Your task to perform on an android device: Open Maps and search for coffee Image 0: 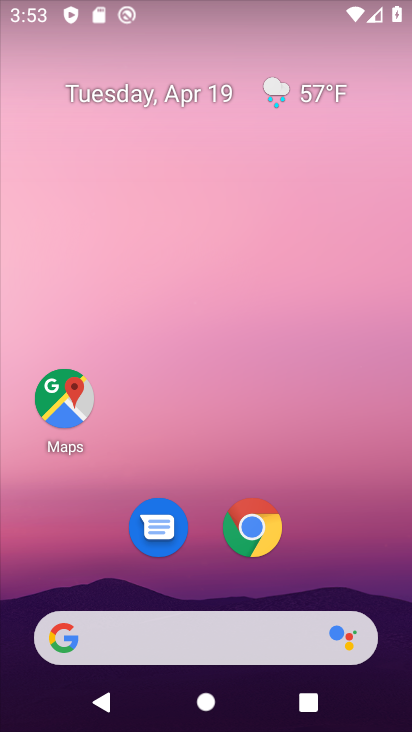
Step 0: click (55, 390)
Your task to perform on an android device: Open Maps and search for coffee Image 1: 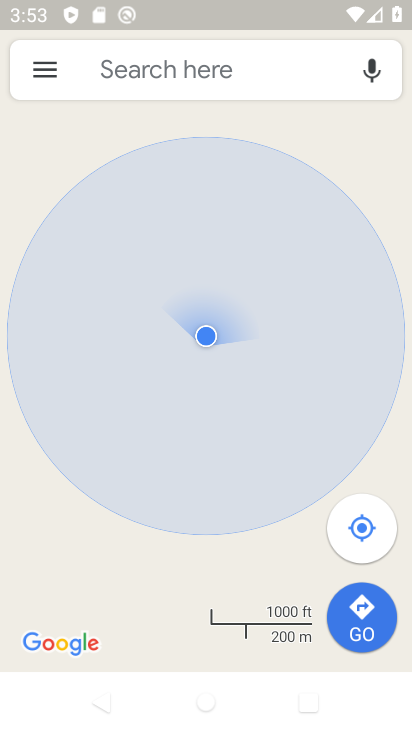
Step 1: click (163, 65)
Your task to perform on an android device: Open Maps and search for coffee Image 2: 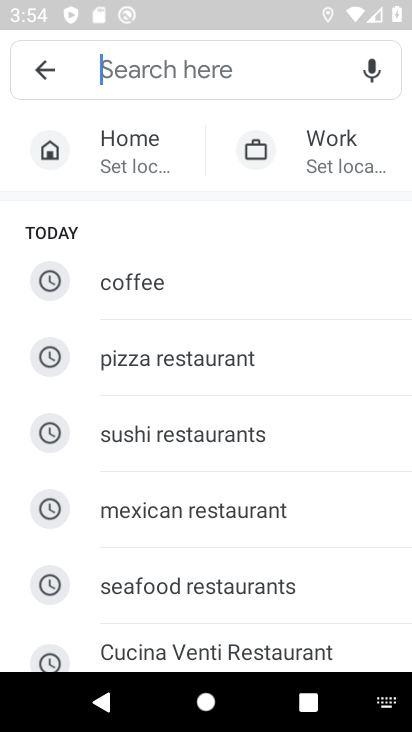
Step 2: type "coffee"
Your task to perform on an android device: Open Maps and search for coffee Image 3: 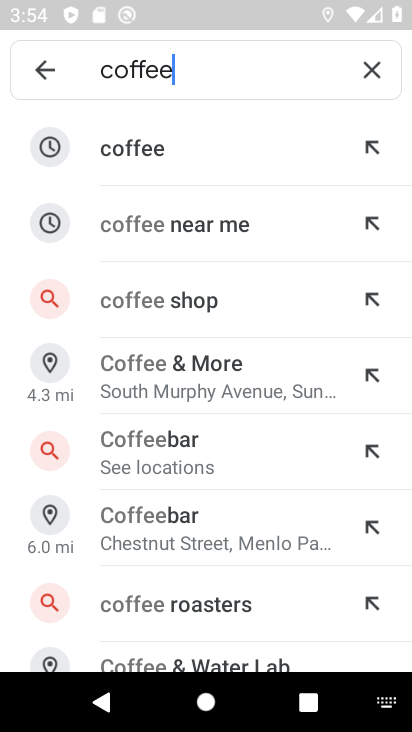
Step 3: click (124, 151)
Your task to perform on an android device: Open Maps and search for coffee Image 4: 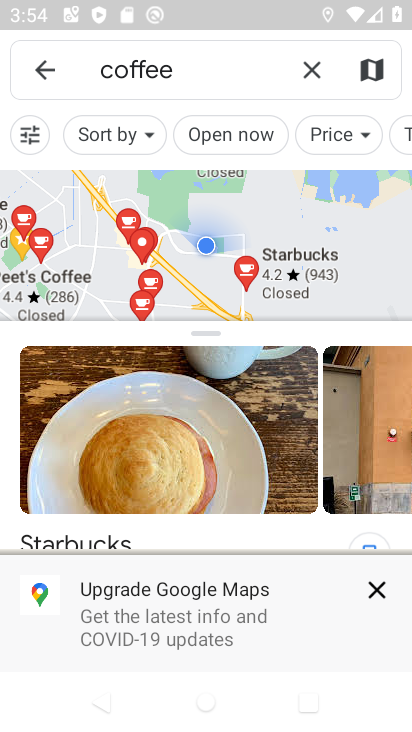
Step 4: task complete